Your task to perform on an android device: empty trash in the gmail app Image 0: 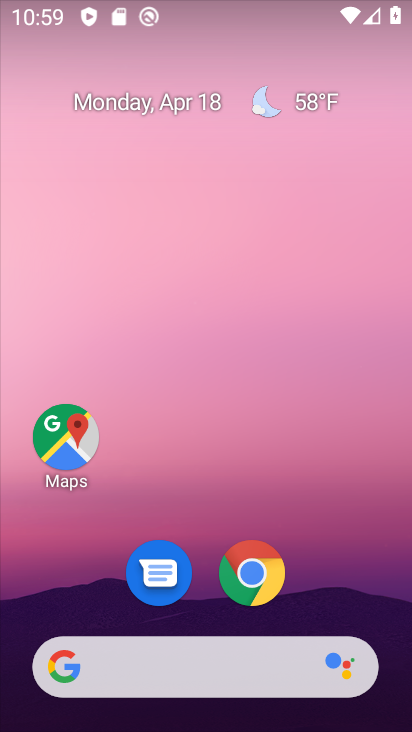
Step 0: drag from (333, 612) to (324, 117)
Your task to perform on an android device: empty trash in the gmail app Image 1: 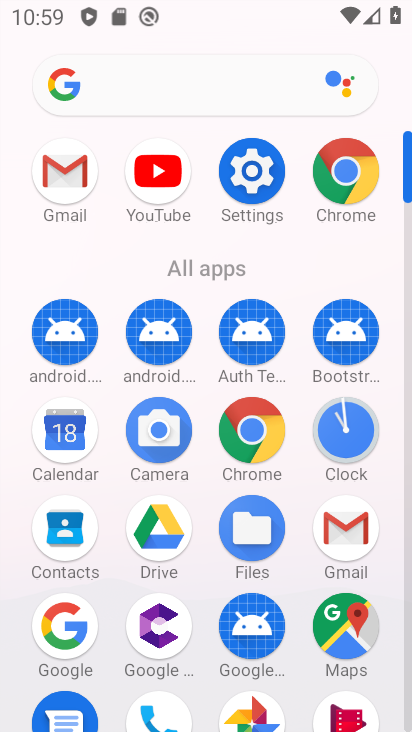
Step 1: click (341, 529)
Your task to perform on an android device: empty trash in the gmail app Image 2: 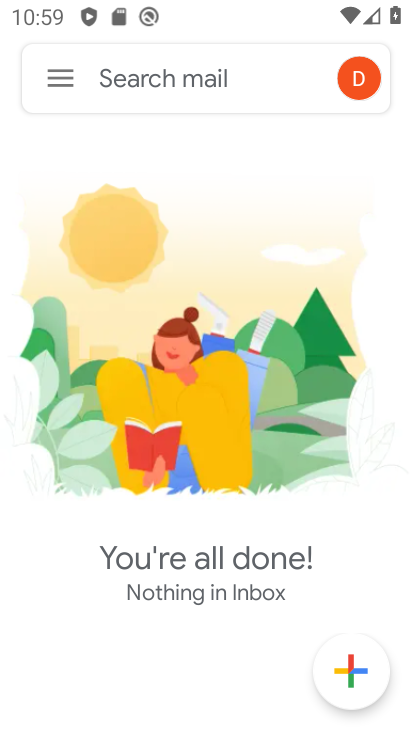
Step 2: click (52, 72)
Your task to perform on an android device: empty trash in the gmail app Image 3: 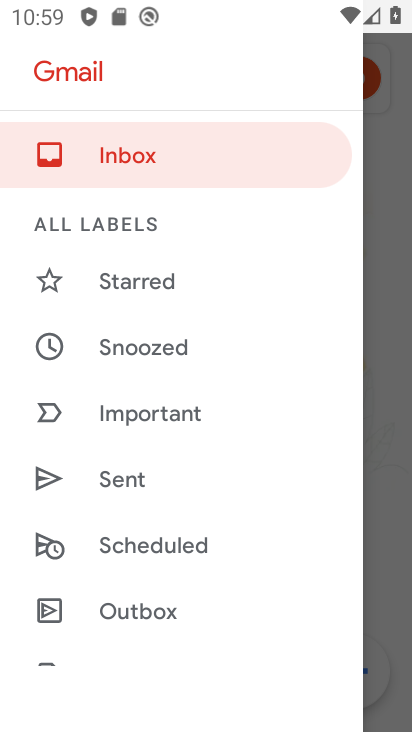
Step 3: drag from (269, 615) to (293, 305)
Your task to perform on an android device: empty trash in the gmail app Image 4: 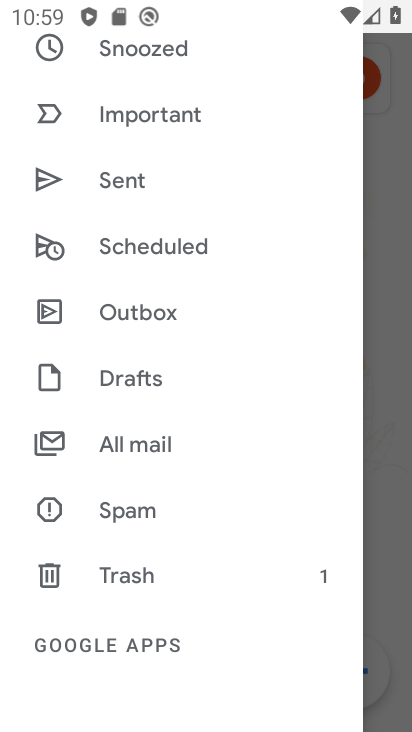
Step 4: click (149, 575)
Your task to perform on an android device: empty trash in the gmail app Image 5: 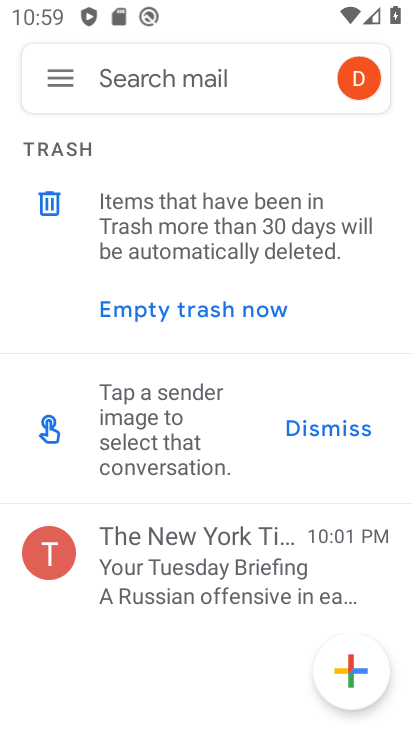
Step 5: click (66, 554)
Your task to perform on an android device: empty trash in the gmail app Image 6: 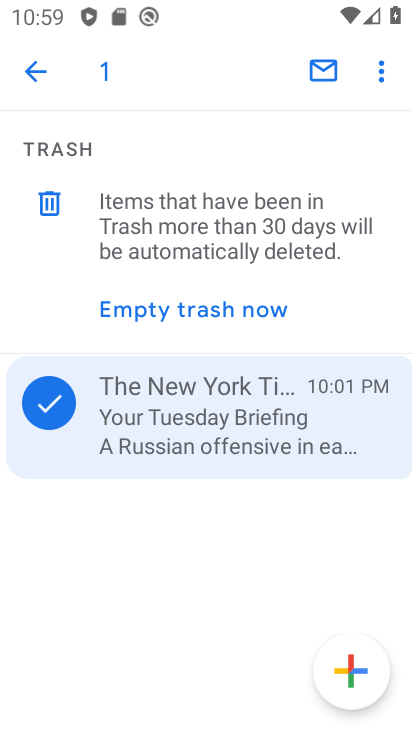
Step 6: click (51, 206)
Your task to perform on an android device: empty trash in the gmail app Image 7: 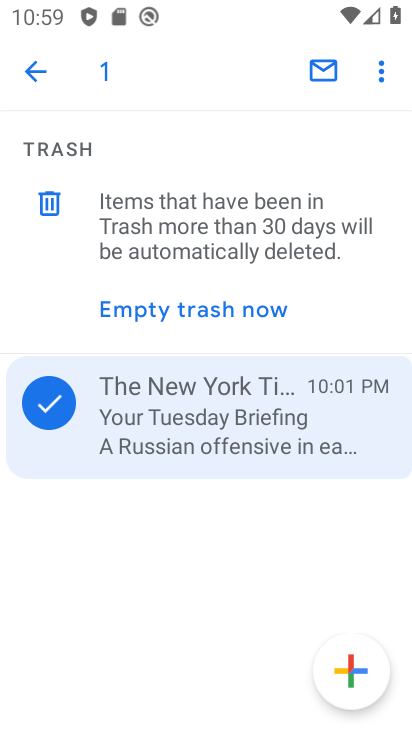
Step 7: click (378, 77)
Your task to perform on an android device: empty trash in the gmail app Image 8: 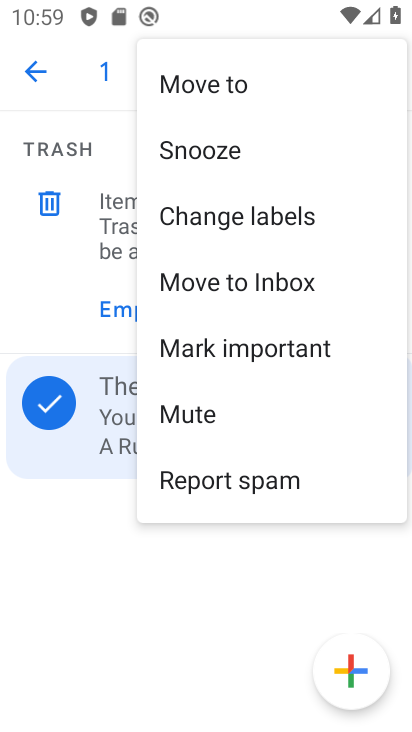
Step 8: click (174, 634)
Your task to perform on an android device: empty trash in the gmail app Image 9: 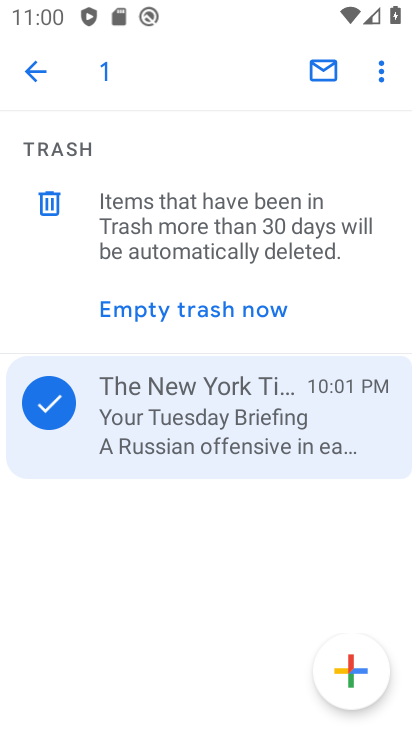
Step 9: click (52, 209)
Your task to perform on an android device: empty trash in the gmail app Image 10: 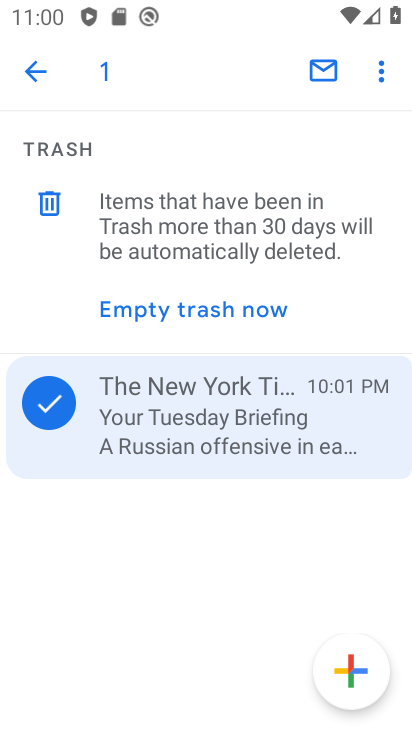
Step 10: click (170, 309)
Your task to perform on an android device: empty trash in the gmail app Image 11: 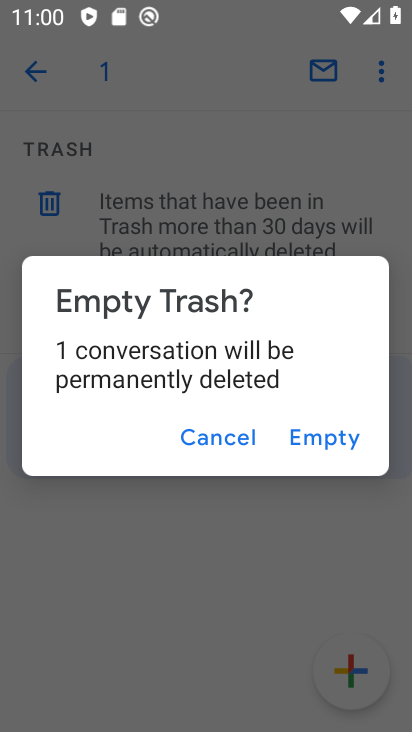
Step 11: click (324, 437)
Your task to perform on an android device: empty trash in the gmail app Image 12: 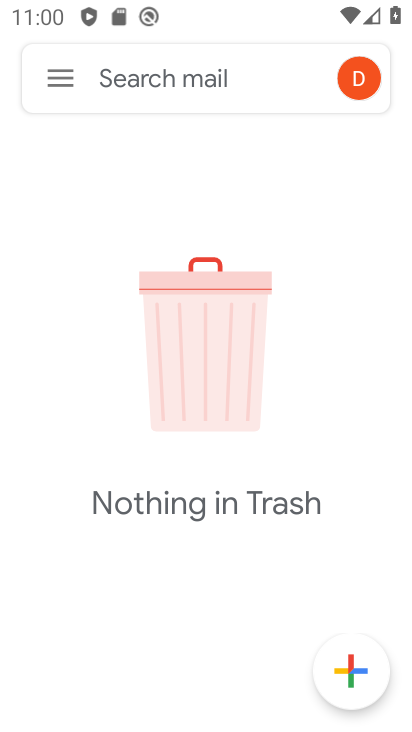
Step 12: task complete